Your task to perform on an android device: install app "Google Sheets" Image 0: 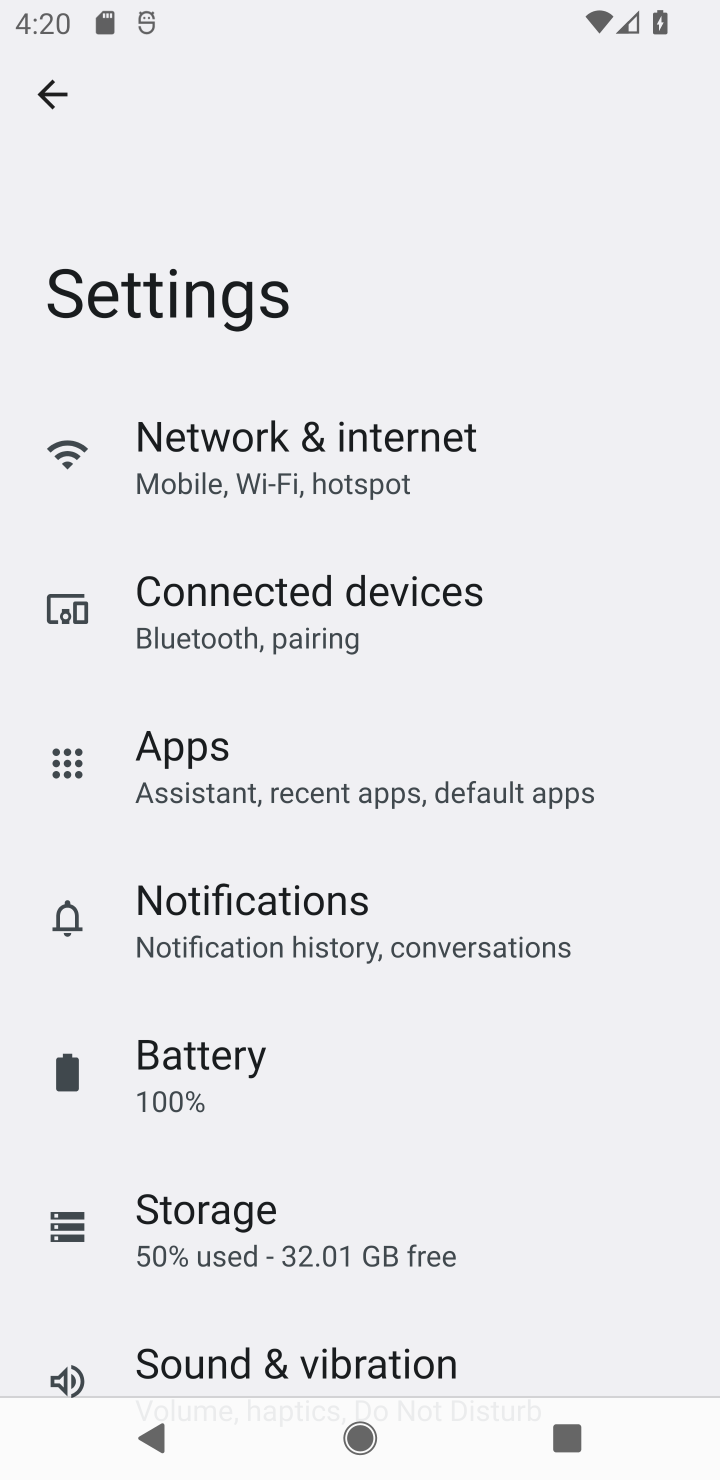
Step 0: press home button
Your task to perform on an android device: install app "Google Sheets" Image 1: 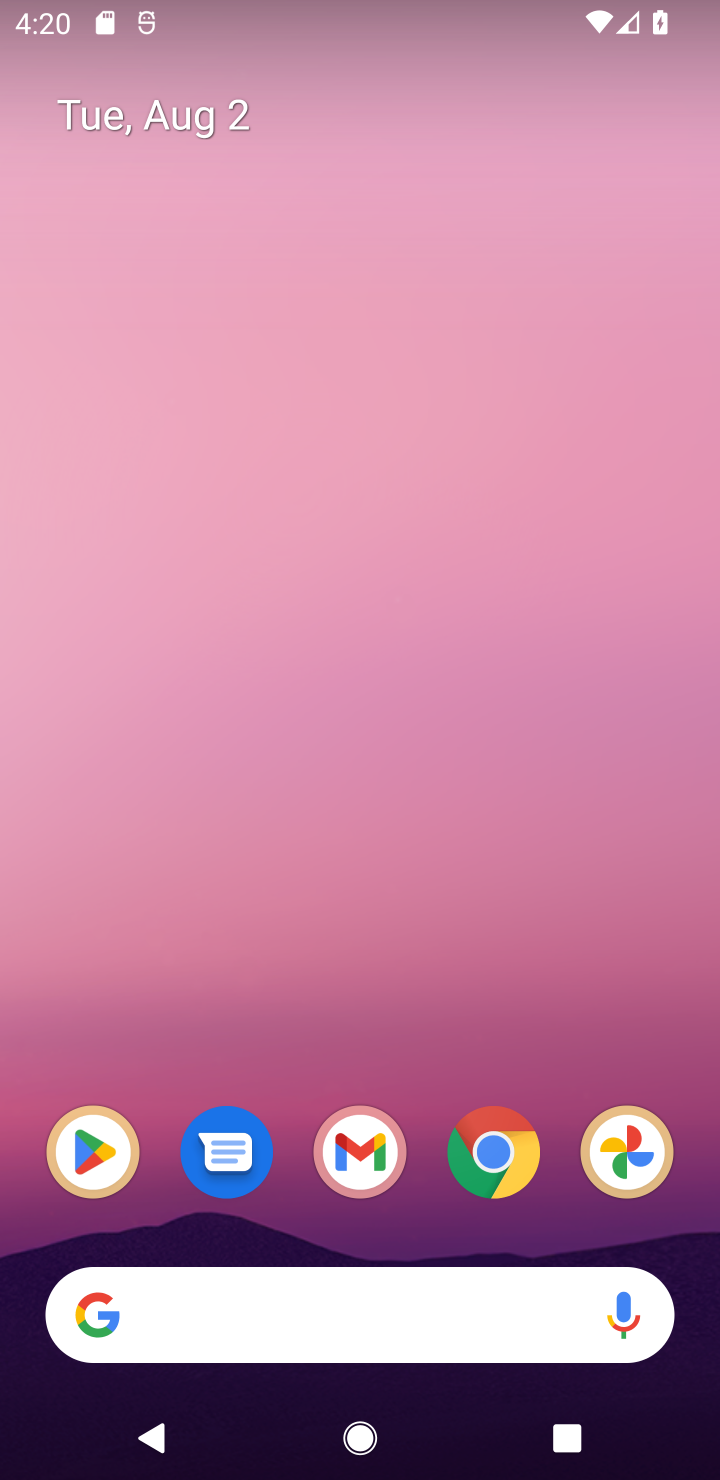
Step 1: drag from (351, 1230) to (495, 97)
Your task to perform on an android device: install app "Google Sheets" Image 2: 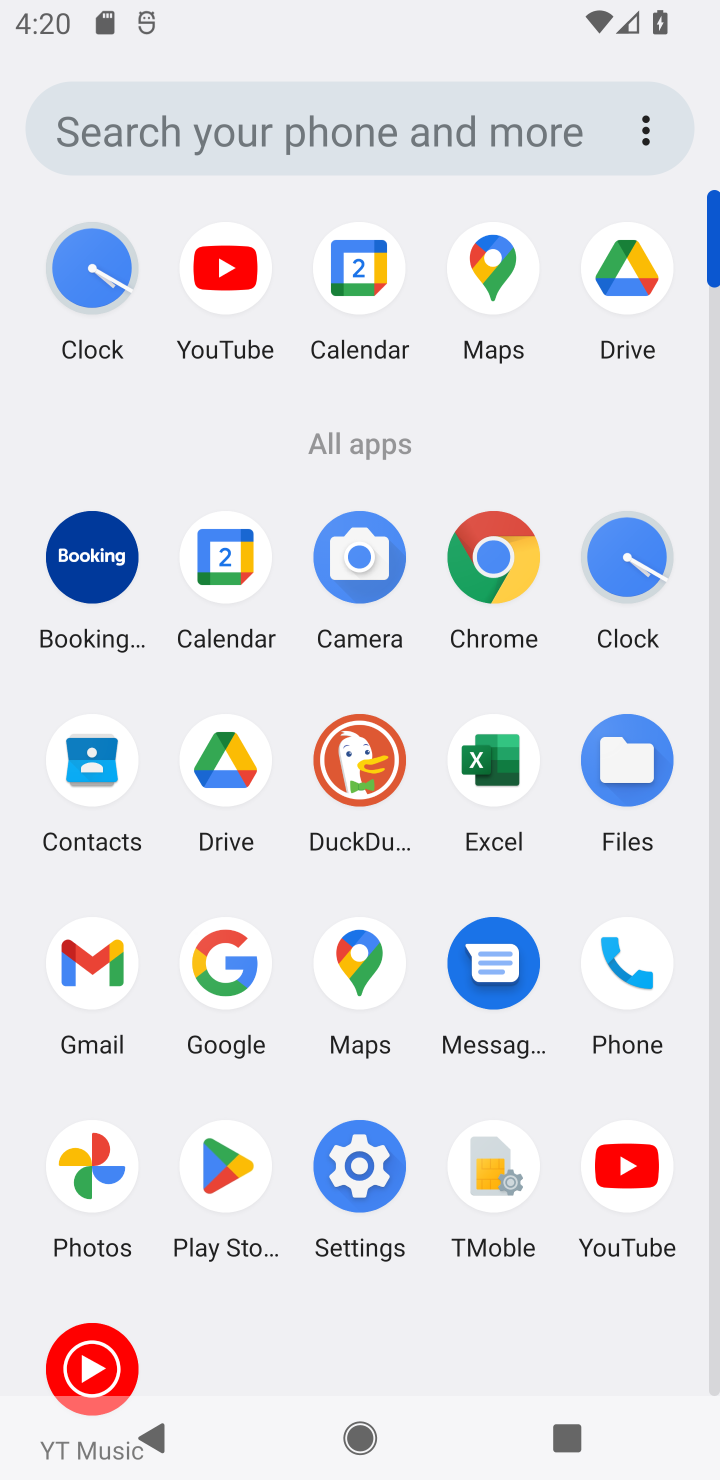
Step 2: click (229, 1192)
Your task to perform on an android device: install app "Google Sheets" Image 3: 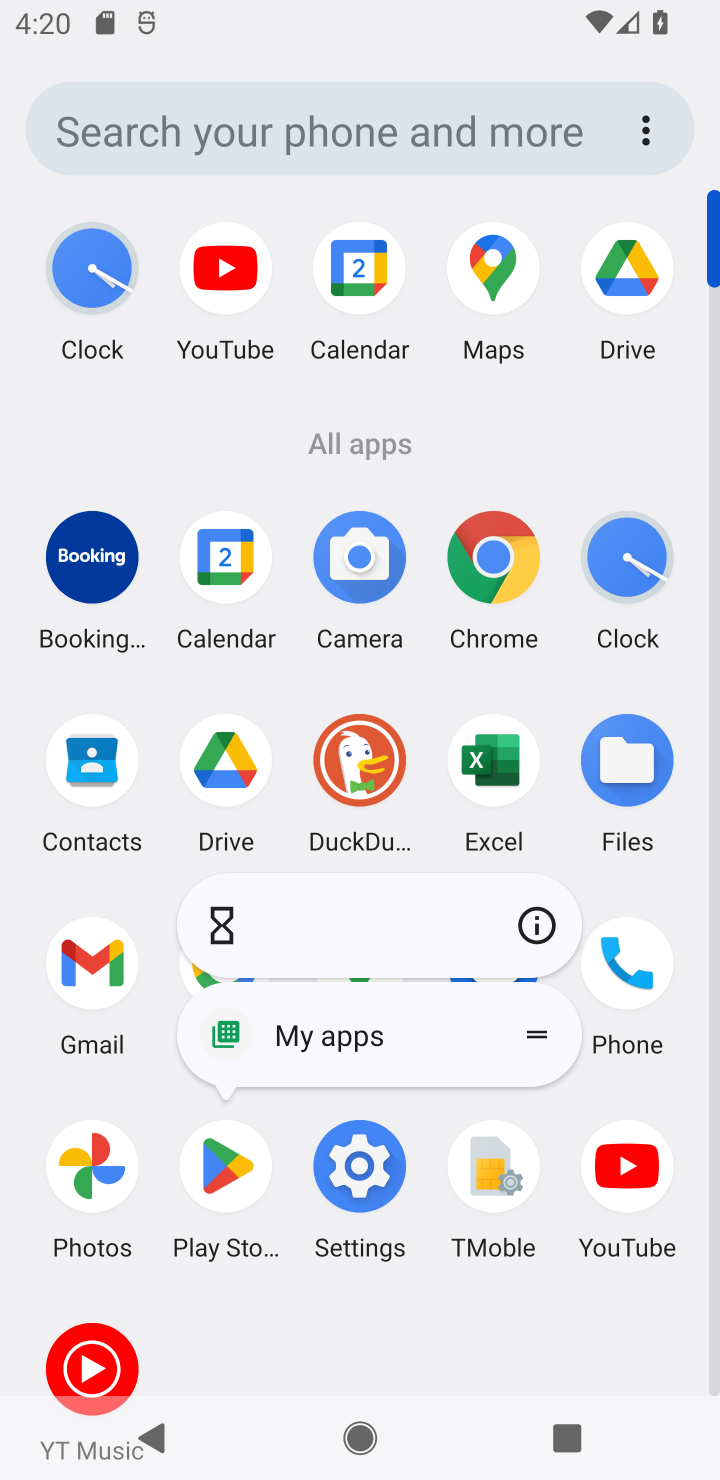
Step 3: click (234, 1178)
Your task to perform on an android device: install app "Google Sheets" Image 4: 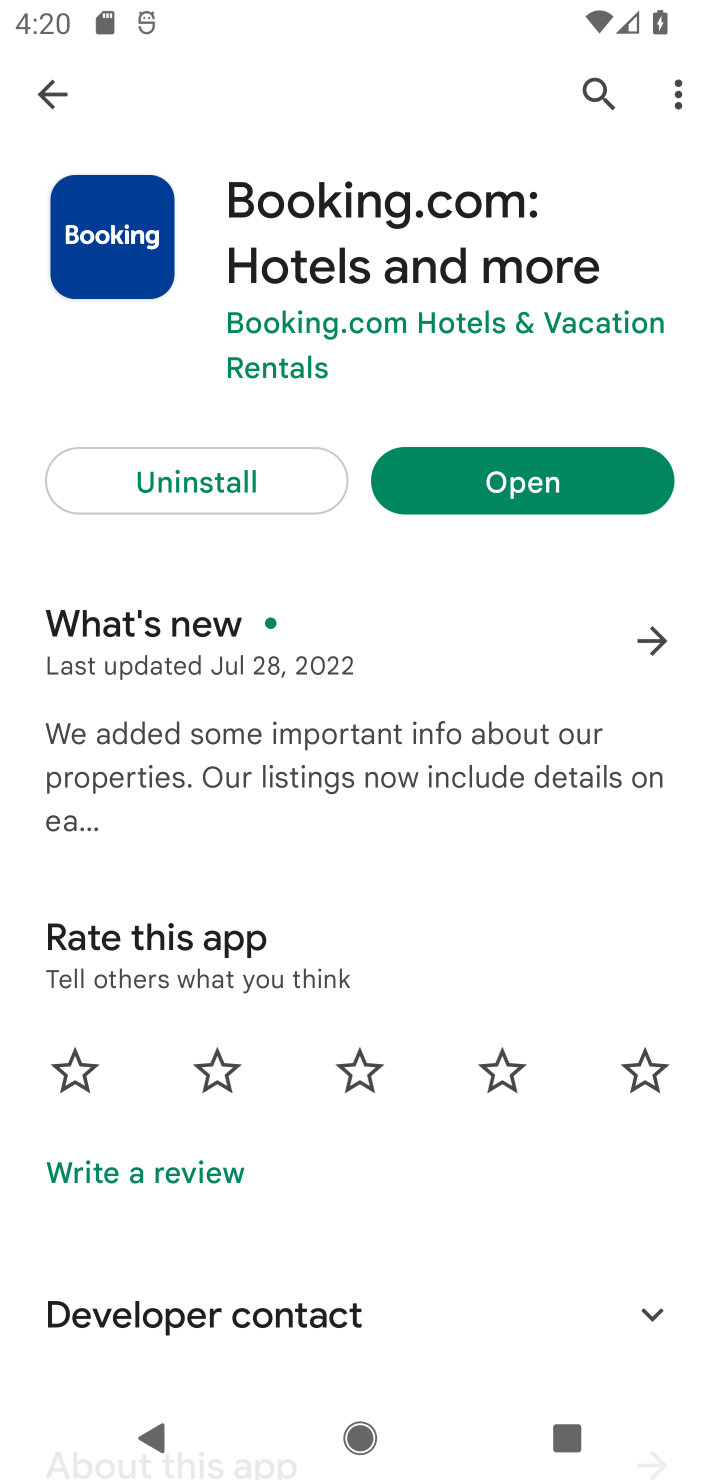
Step 4: click (53, 83)
Your task to perform on an android device: install app "Google Sheets" Image 5: 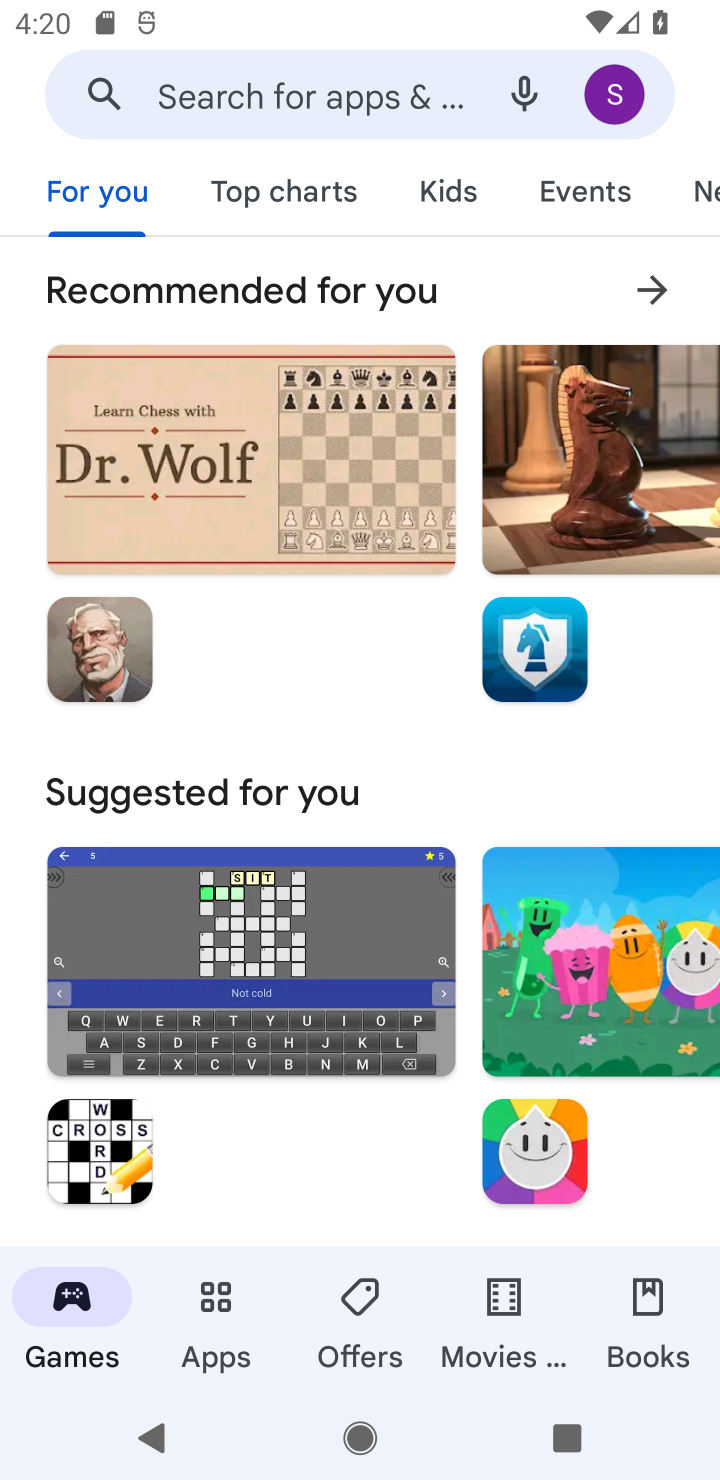
Step 5: click (143, 92)
Your task to perform on an android device: install app "Google Sheets" Image 6: 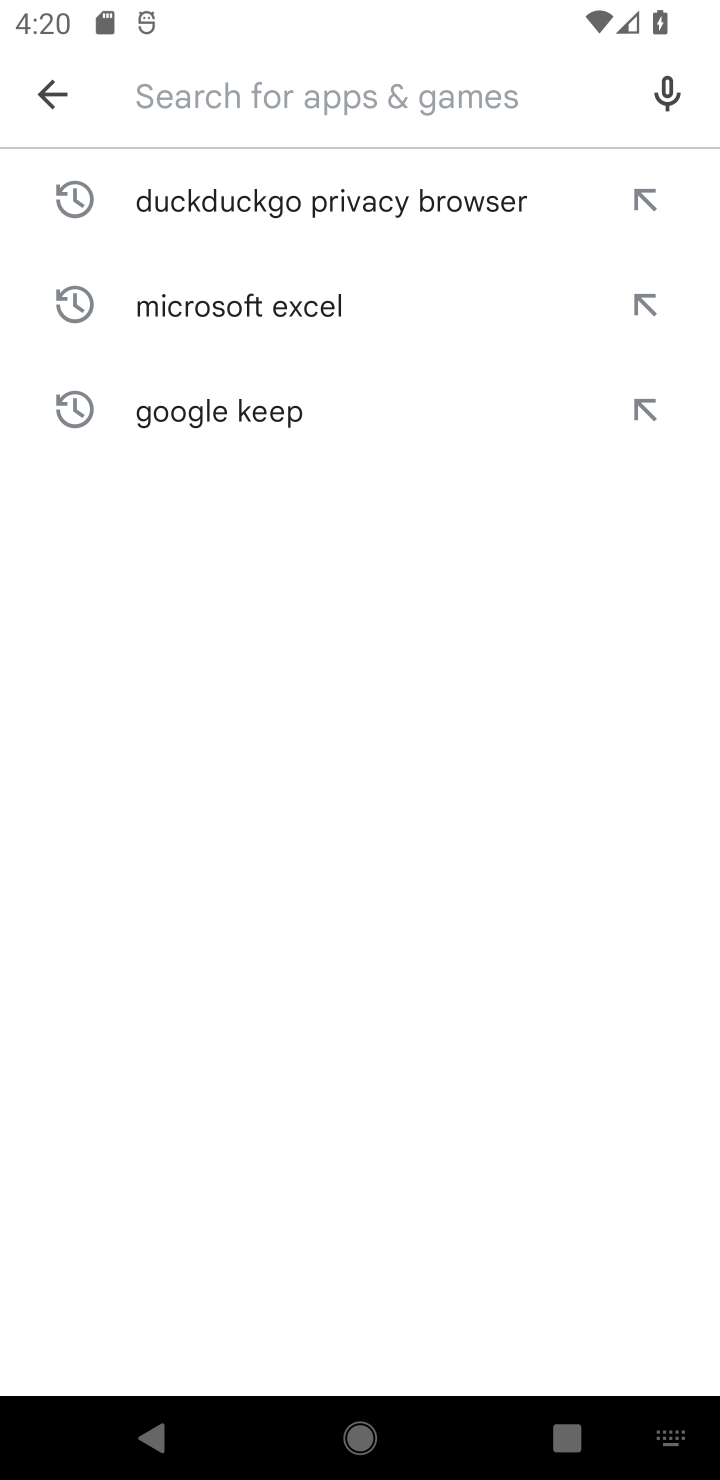
Step 6: type "Google Sheets"
Your task to perform on an android device: install app "Google Sheets" Image 7: 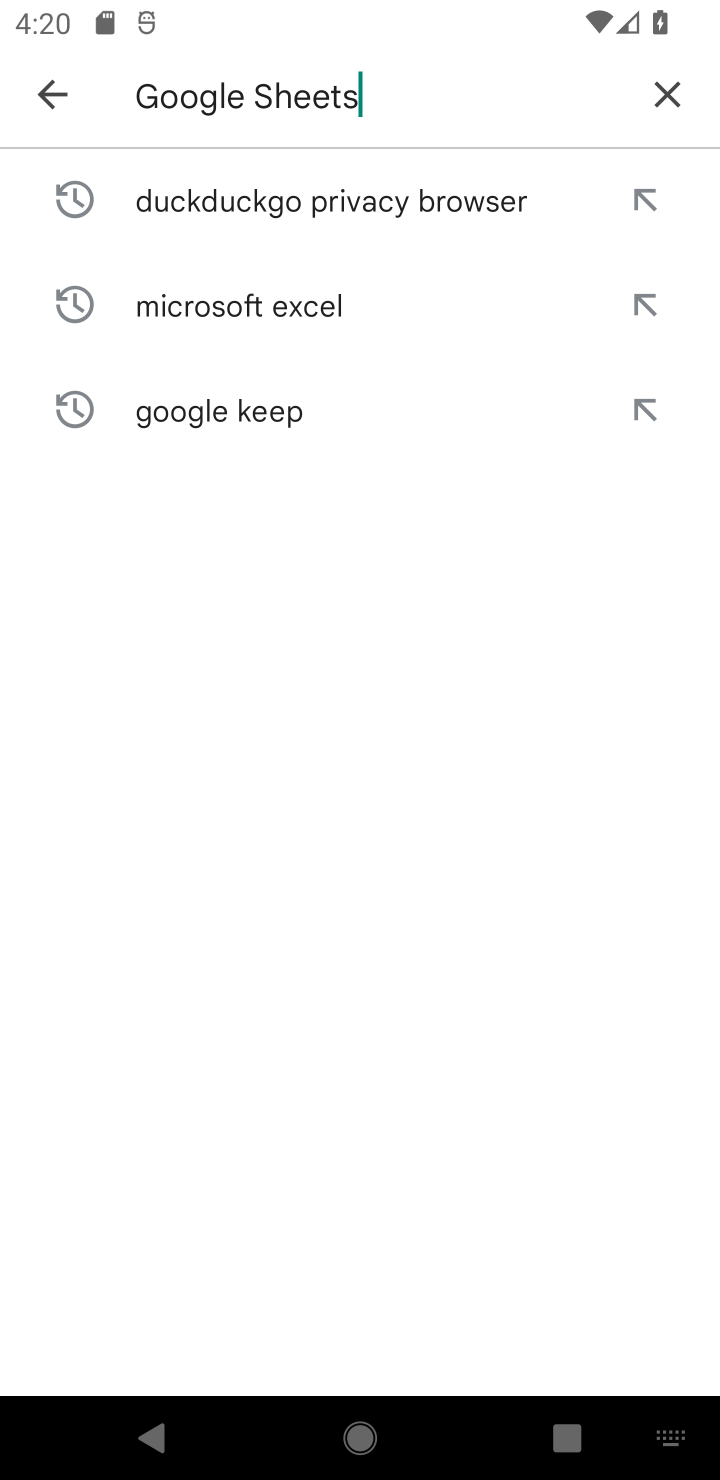
Step 7: type ""
Your task to perform on an android device: install app "Google Sheets" Image 8: 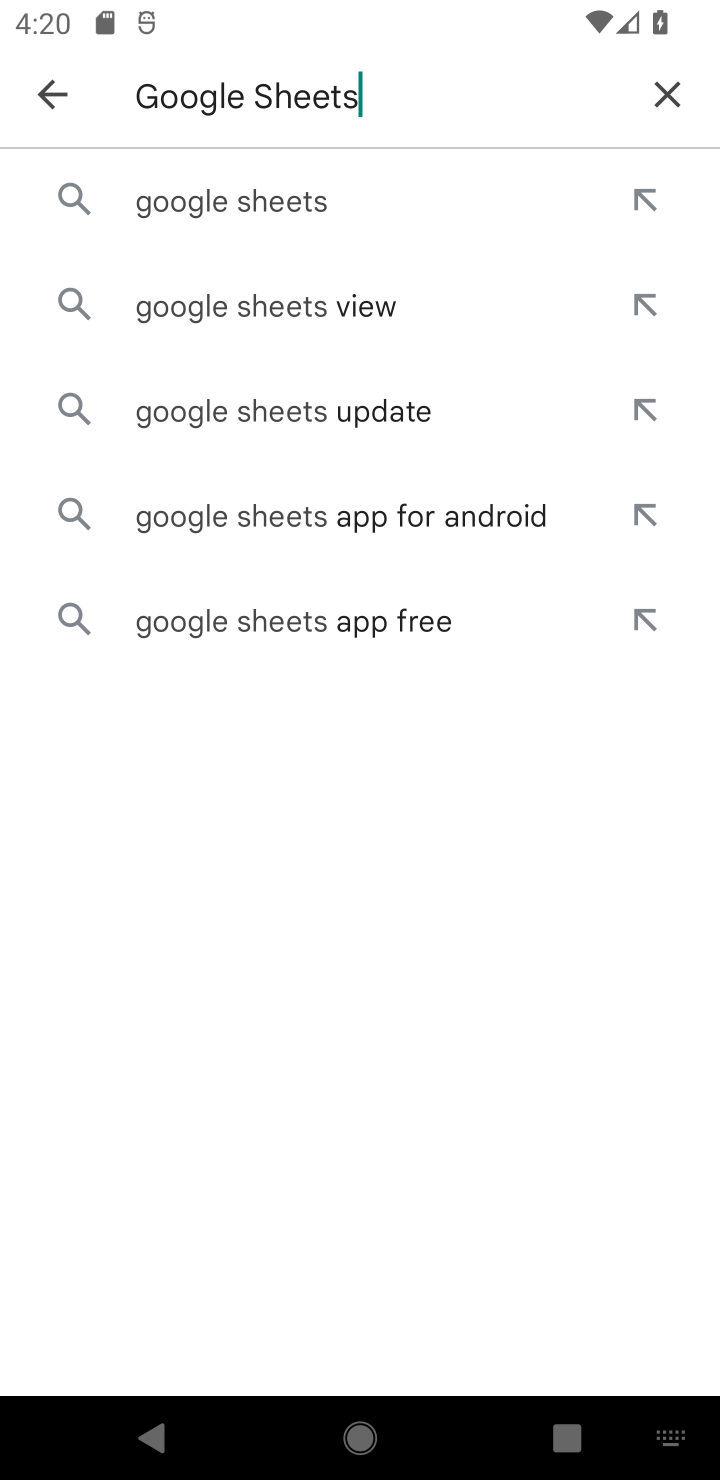
Step 8: click (350, 201)
Your task to perform on an android device: install app "Google Sheets" Image 9: 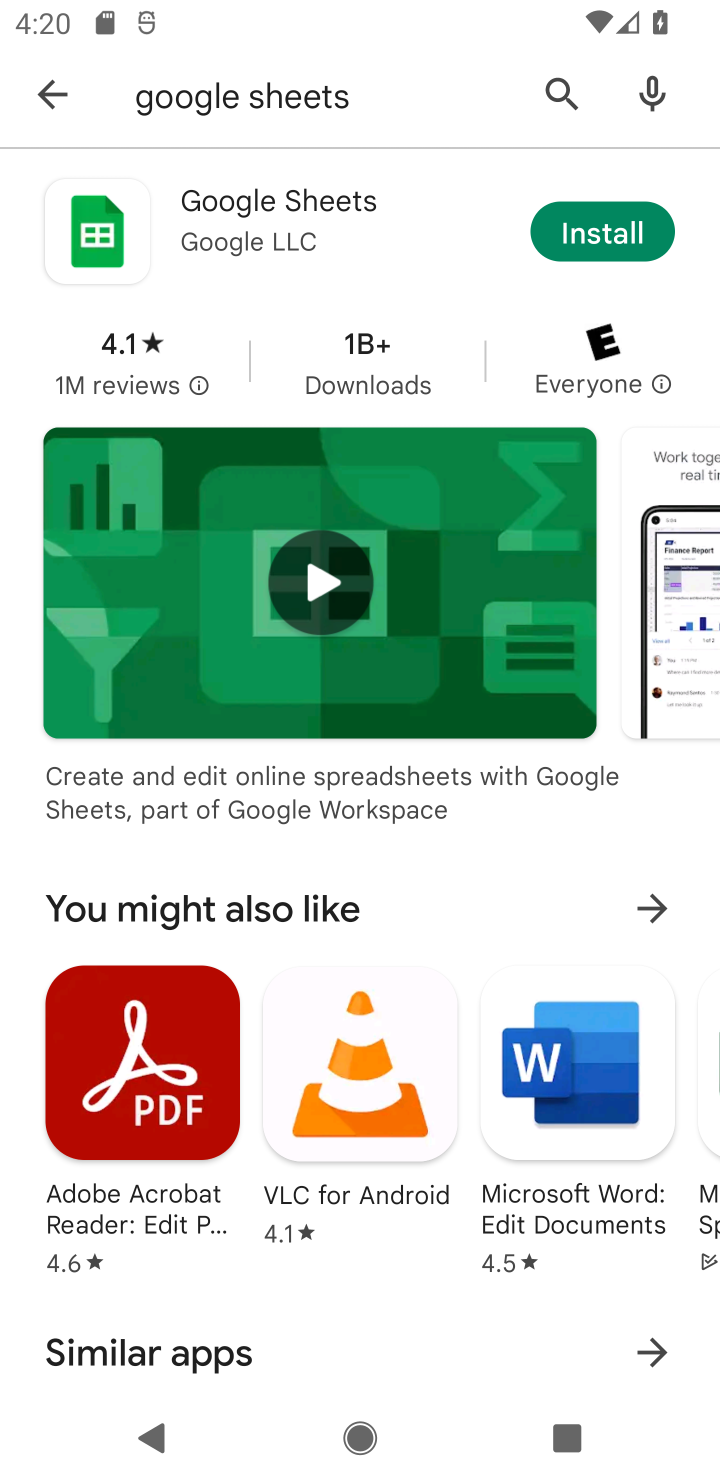
Step 9: click (600, 244)
Your task to perform on an android device: install app "Google Sheets" Image 10: 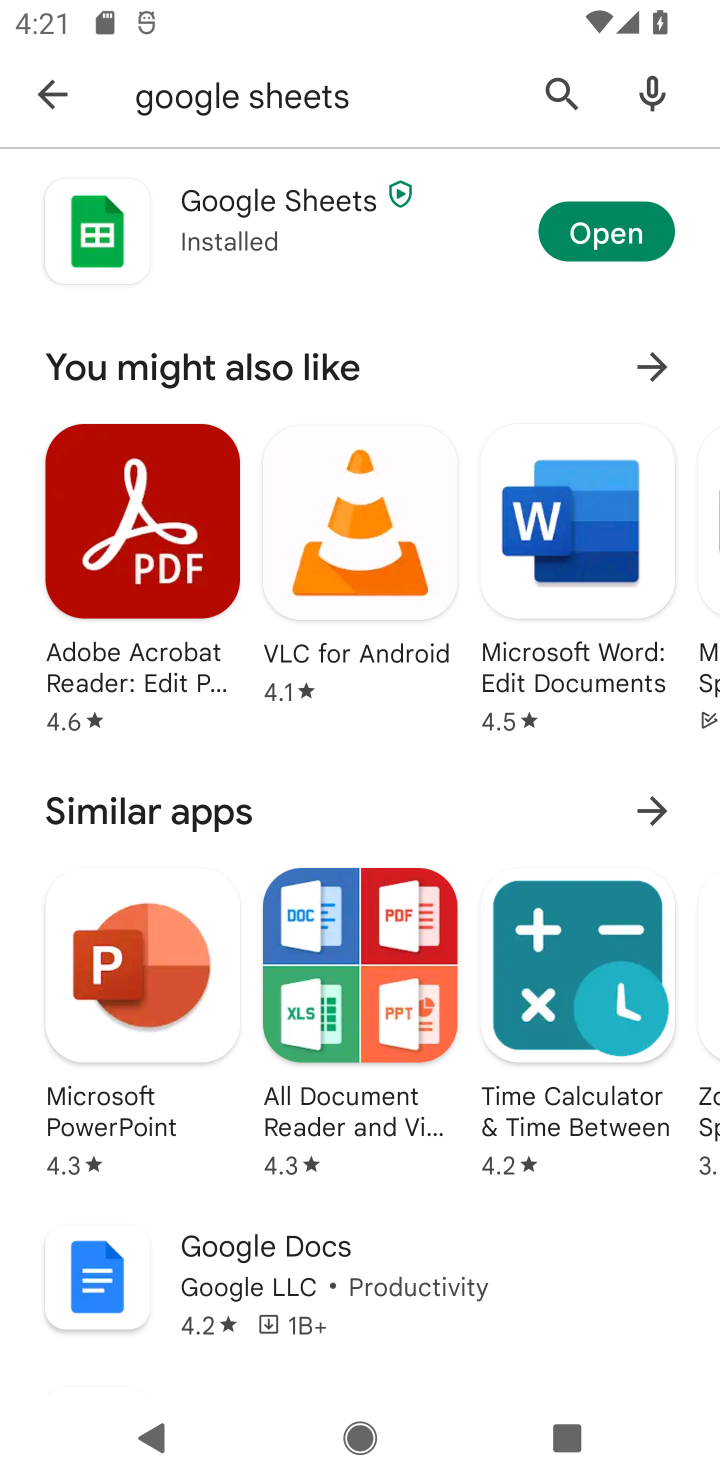
Step 10: task complete